Your task to perform on an android device: turn off location Image 0: 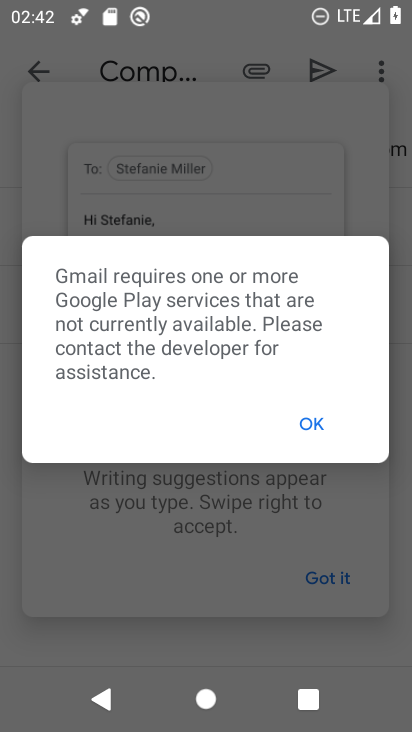
Step 0: press home button
Your task to perform on an android device: turn off location Image 1: 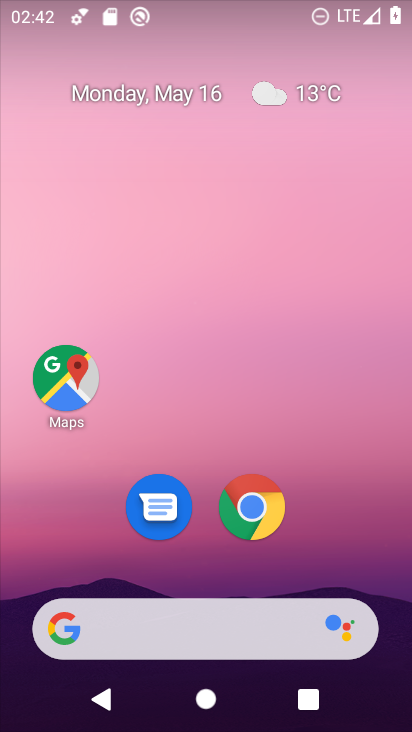
Step 1: drag from (339, 511) to (229, 88)
Your task to perform on an android device: turn off location Image 2: 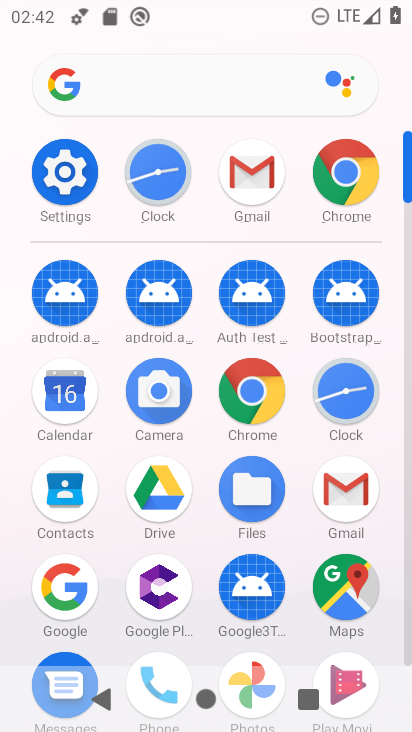
Step 2: click (80, 184)
Your task to perform on an android device: turn off location Image 3: 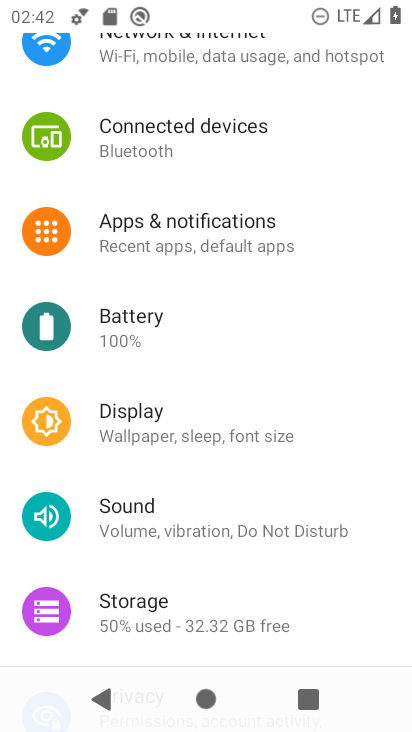
Step 3: drag from (243, 529) to (210, 90)
Your task to perform on an android device: turn off location Image 4: 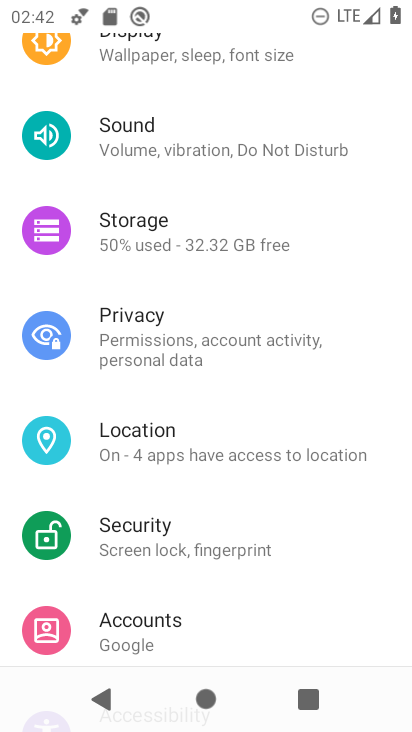
Step 4: click (193, 459)
Your task to perform on an android device: turn off location Image 5: 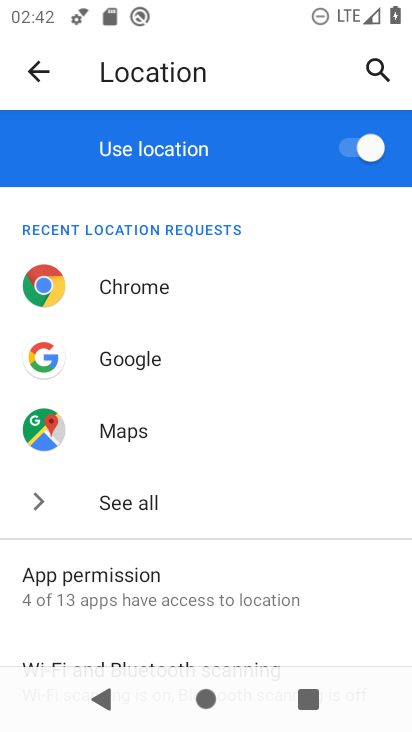
Step 5: click (355, 143)
Your task to perform on an android device: turn off location Image 6: 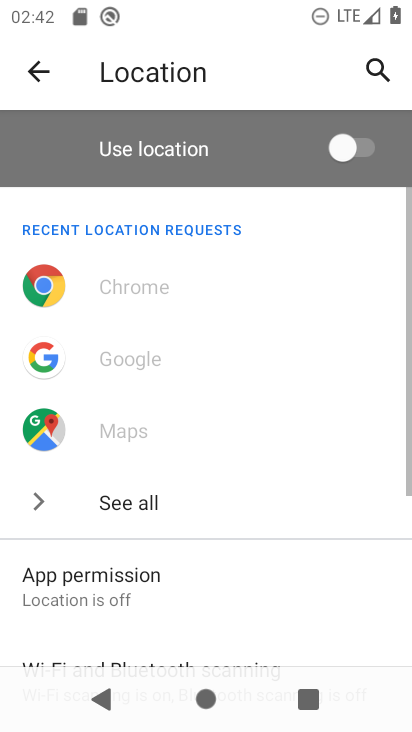
Step 6: task complete